Your task to perform on an android device: What is the news today? Image 0: 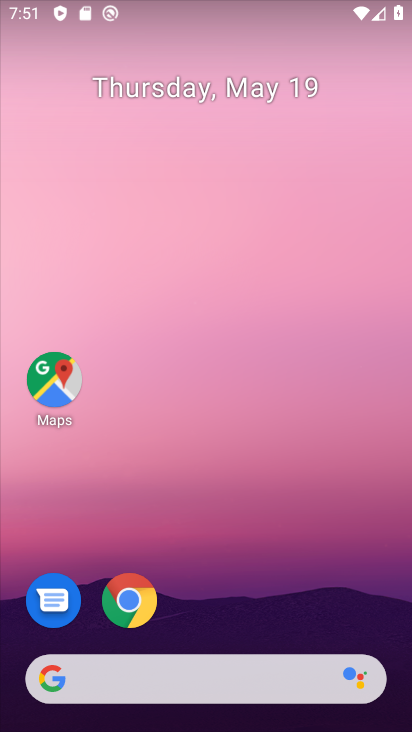
Step 0: click (245, 673)
Your task to perform on an android device: What is the news today? Image 1: 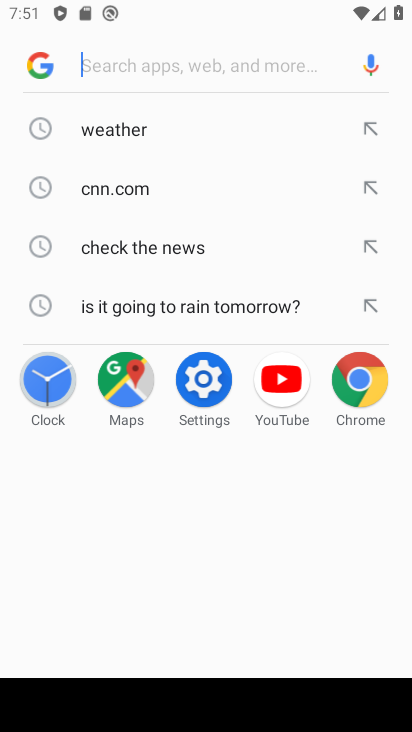
Step 1: click (247, 243)
Your task to perform on an android device: What is the news today? Image 2: 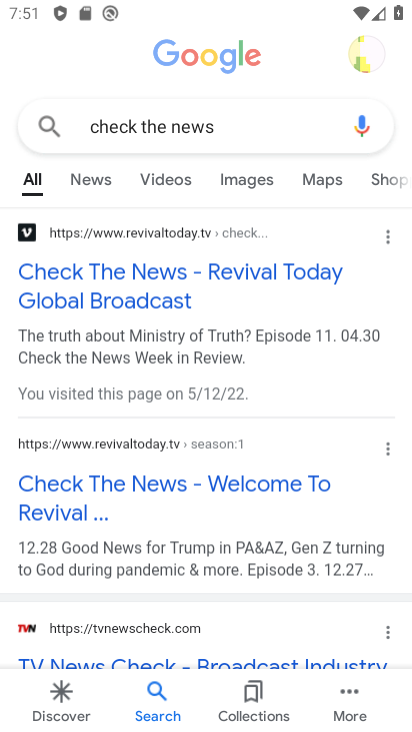
Step 2: task complete